Your task to perform on an android device: Open calendar and show me the second week of next month Image 0: 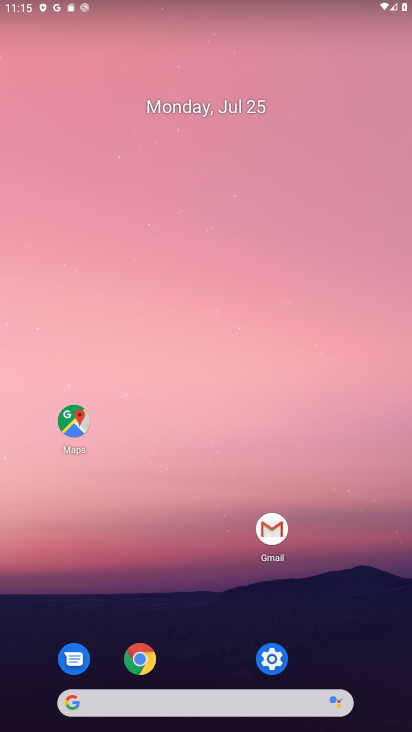
Step 0: drag from (278, 694) to (354, 216)
Your task to perform on an android device: Open calendar and show me the second week of next month Image 1: 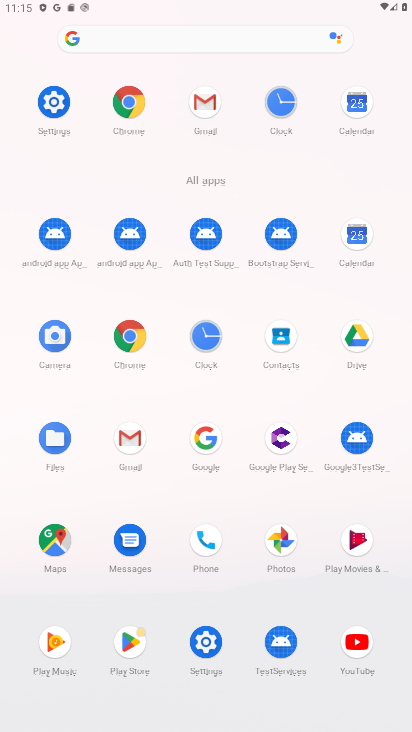
Step 1: click (356, 232)
Your task to perform on an android device: Open calendar and show me the second week of next month Image 2: 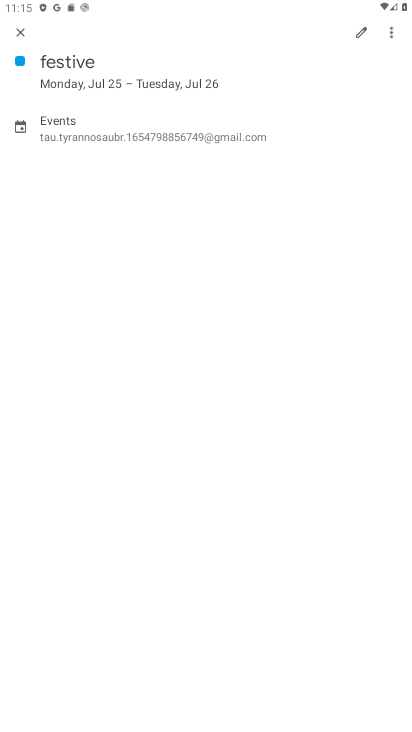
Step 2: click (20, 38)
Your task to perform on an android device: Open calendar and show me the second week of next month Image 3: 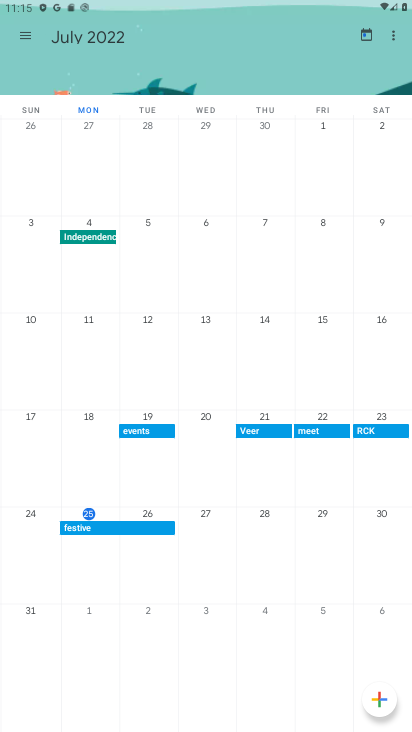
Step 3: drag from (381, 415) to (10, 328)
Your task to perform on an android device: Open calendar and show me the second week of next month Image 4: 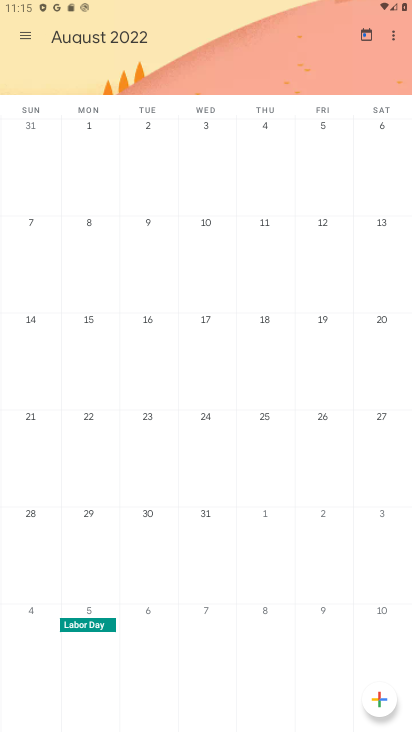
Step 4: click (93, 244)
Your task to perform on an android device: Open calendar and show me the second week of next month Image 5: 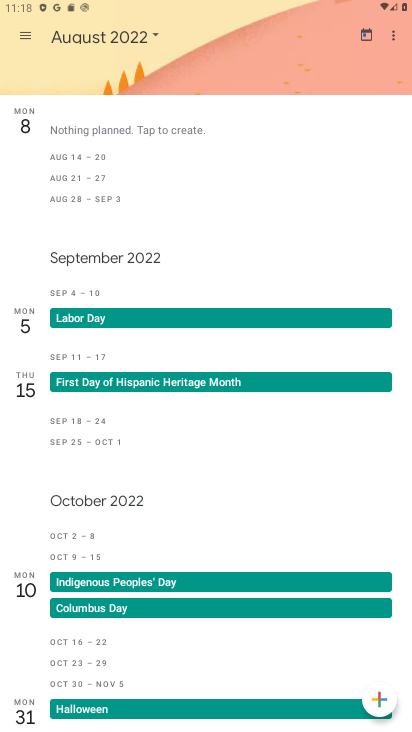
Step 5: task complete